Your task to perform on an android device: Open the calendar app, open the side menu, and click the "Day" option Image 0: 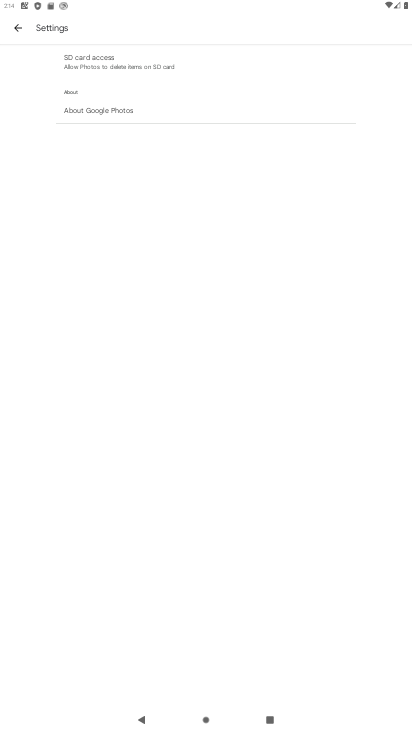
Step 0: press home button
Your task to perform on an android device: Open the calendar app, open the side menu, and click the "Day" option Image 1: 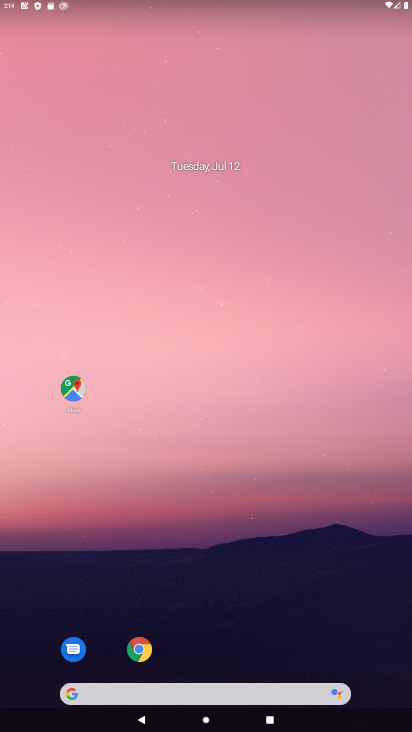
Step 1: drag from (252, 604) to (152, 41)
Your task to perform on an android device: Open the calendar app, open the side menu, and click the "Day" option Image 2: 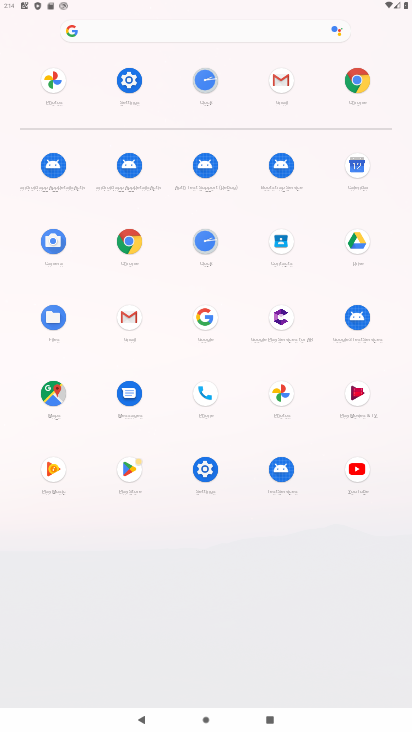
Step 2: click (355, 163)
Your task to perform on an android device: Open the calendar app, open the side menu, and click the "Day" option Image 3: 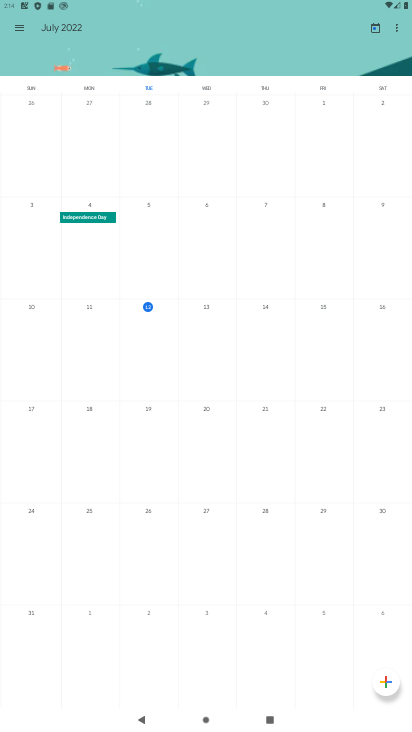
Step 3: click (27, 37)
Your task to perform on an android device: Open the calendar app, open the side menu, and click the "Day" option Image 4: 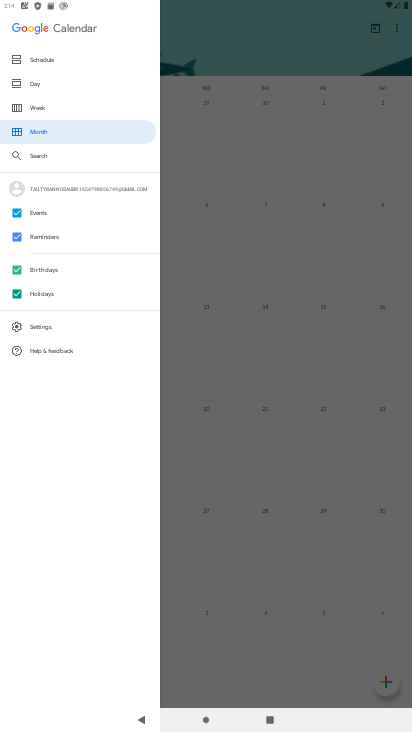
Step 4: click (42, 89)
Your task to perform on an android device: Open the calendar app, open the side menu, and click the "Day" option Image 5: 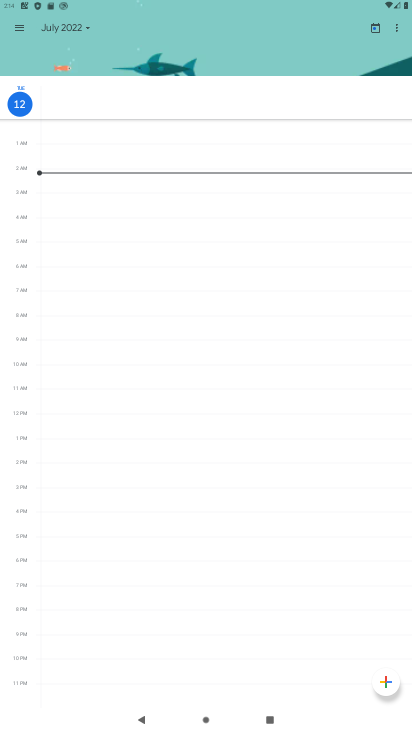
Step 5: task complete